Your task to perform on an android device: check google app version Image 0: 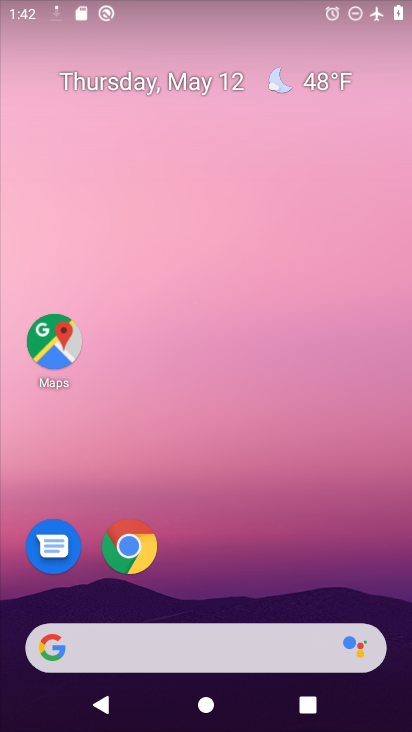
Step 0: drag from (200, 646) to (394, 147)
Your task to perform on an android device: check google app version Image 1: 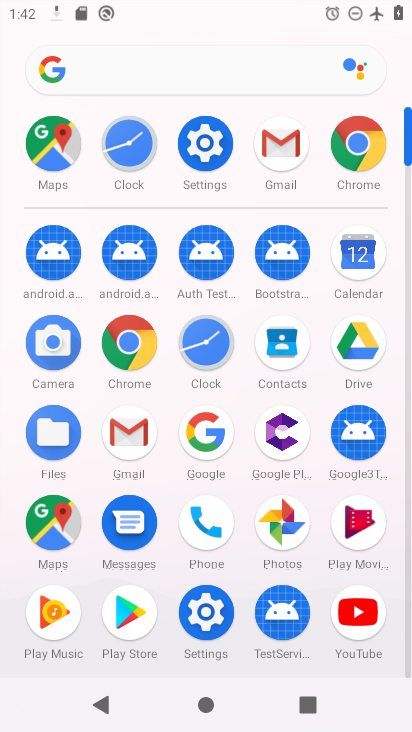
Step 1: click (207, 418)
Your task to perform on an android device: check google app version Image 2: 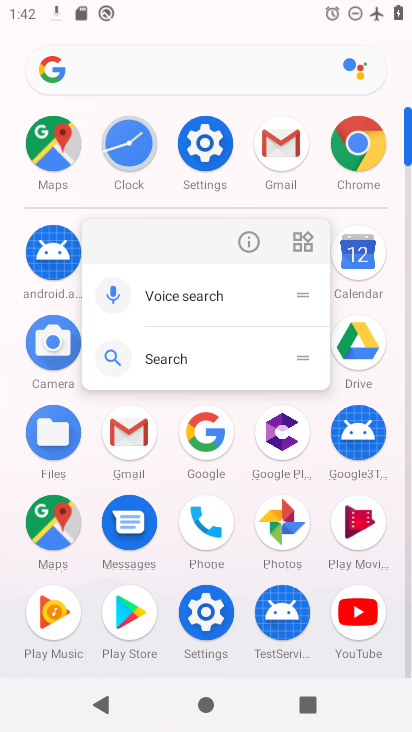
Step 2: click (255, 240)
Your task to perform on an android device: check google app version Image 3: 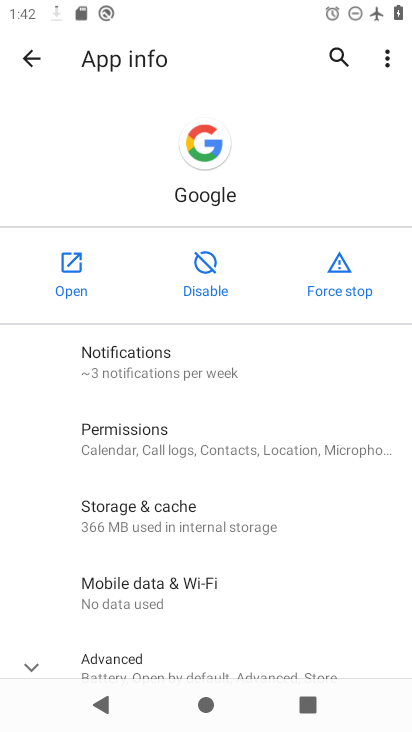
Step 3: drag from (249, 633) to (384, 130)
Your task to perform on an android device: check google app version Image 4: 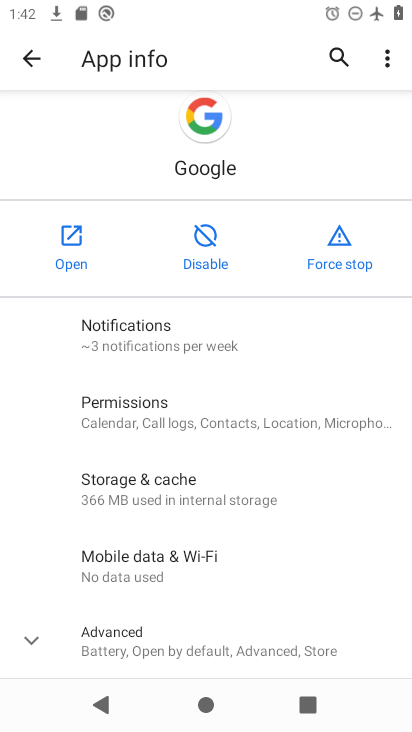
Step 4: click (119, 647)
Your task to perform on an android device: check google app version Image 5: 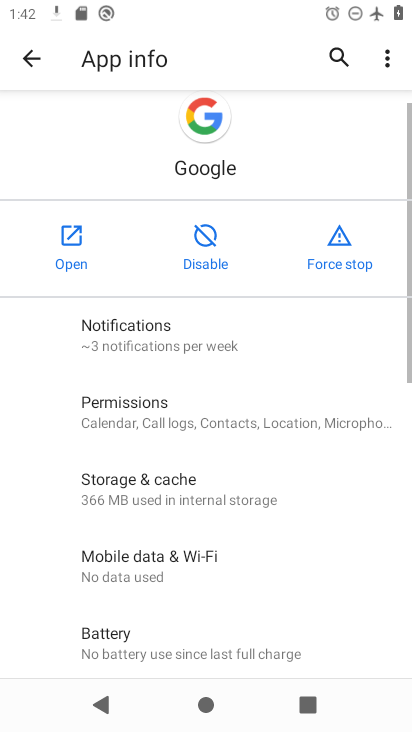
Step 5: task complete